Your task to perform on an android device: What's on my calendar tomorrow? Image 0: 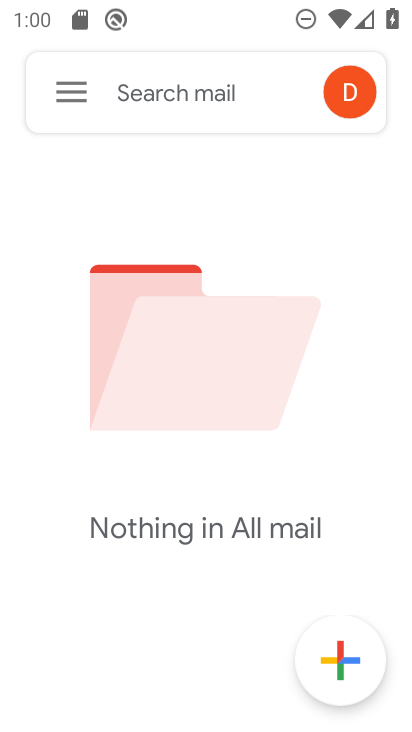
Step 0: press home button
Your task to perform on an android device: What's on my calendar tomorrow? Image 1: 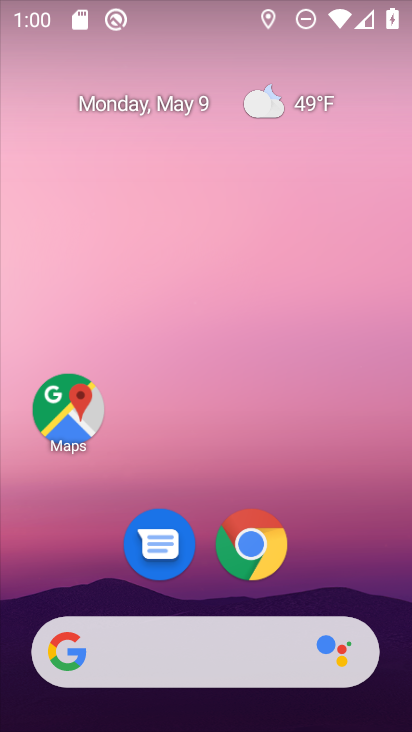
Step 1: drag from (334, 452) to (295, 57)
Your task to perform on an android device: What's on my calendar tomorrow? Image 2: 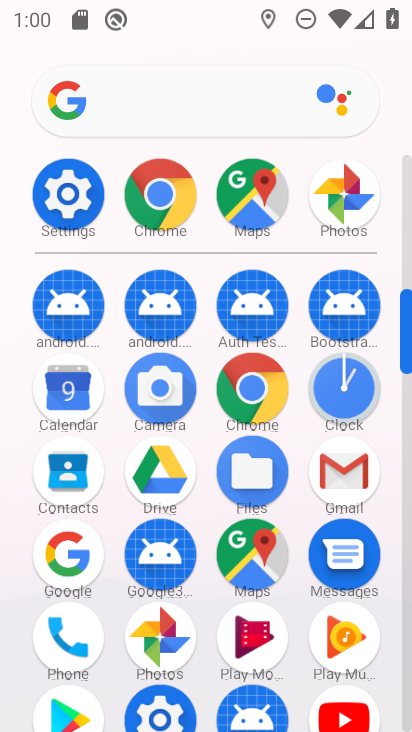
Step 2: click (74, 401)
Your task to perform on an android device: What's on my calendar tomorrow? Image 3: 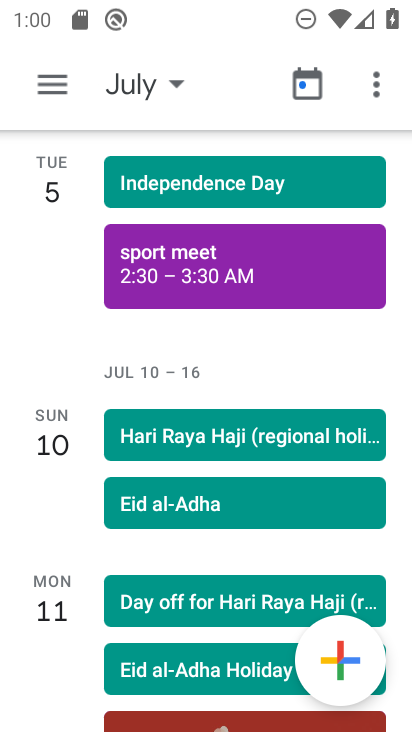
Step 3: click (144, 87)
Your task to perform on an android device: What's on my calendar tomorrow? Image 4: 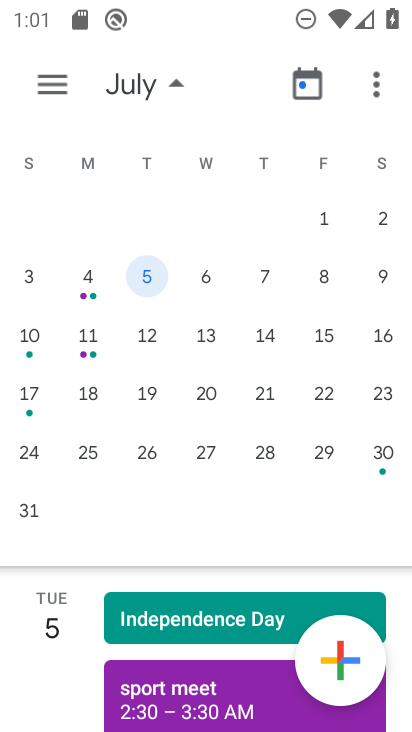
Step 4: click (201, 277)
Your task to perform on an android device: What's on my calendar tomorrow? Image 5: 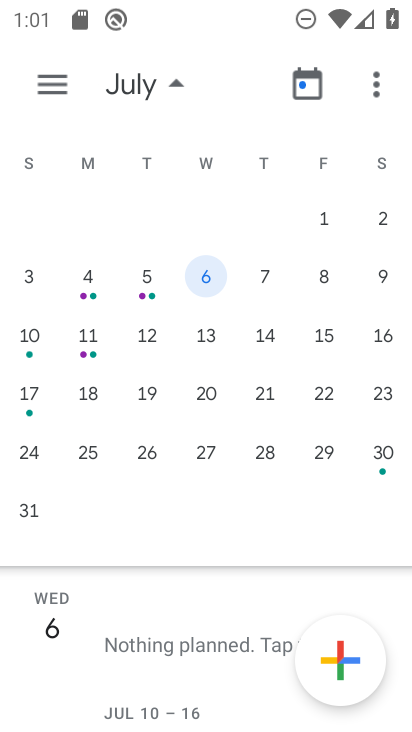
Step 5: task complete